Your task to perform on an android device: Open Amazon Image 0: 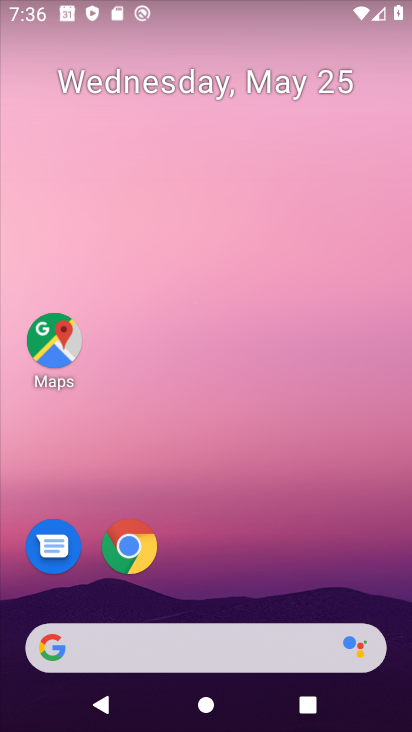
Step 0: drag from (387, 581) to (385, 253)
Your task to perform on an android device: Open Amazon Image 1: 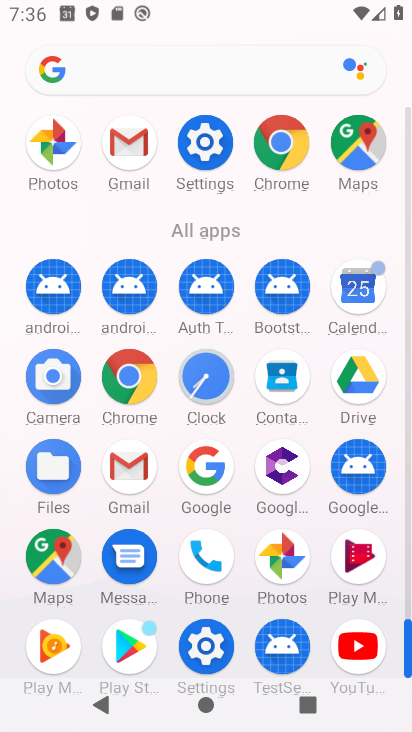
Step 1: click (136, 387)
Your task to perform on an android device: Open Amazon Image 2: 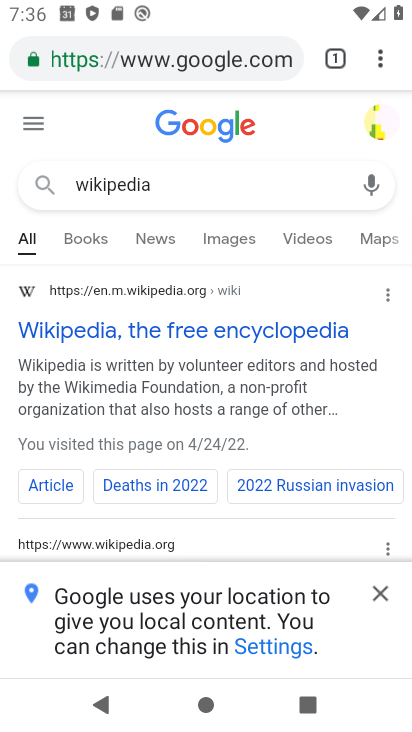
Step 2: click (226, 64)
Your task to perform on an android device: Open Amazon Image 3: 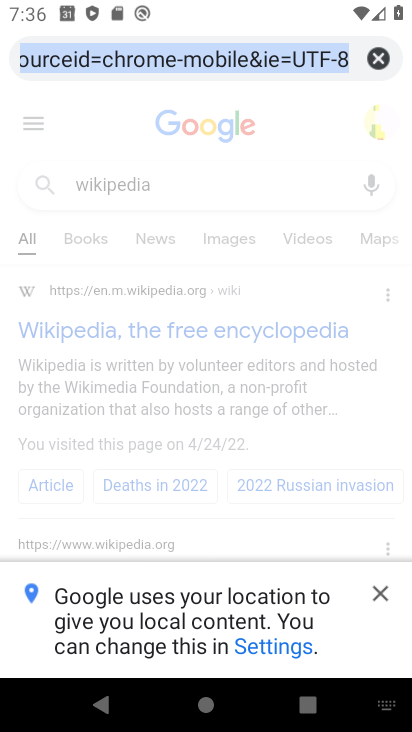
Step 3: click (380, 58)
Your task to perform on an android device: Open Amazon Image 4: 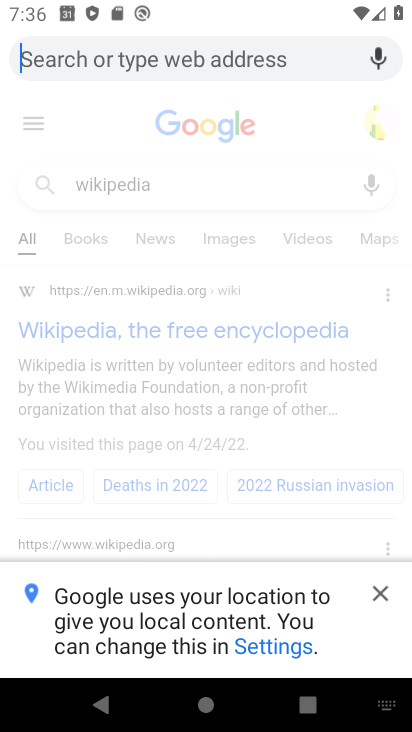
Step 4: type "Amazon"
Your task to perform on an android device: Open Amazon Image 5: 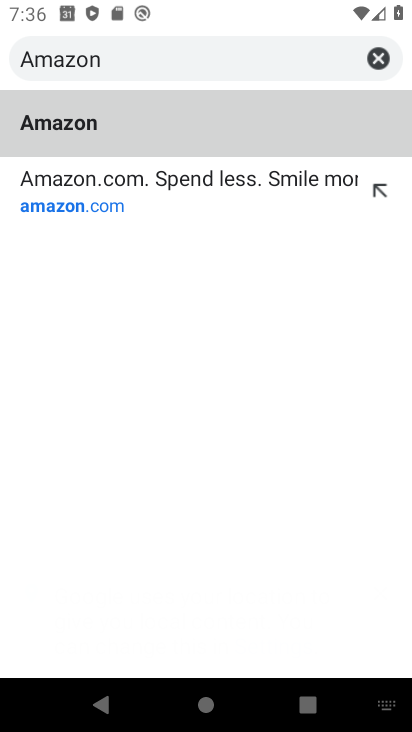
Step 5: click (118, 176)
Your task to perform on an android device: Open Amazon Image 6: 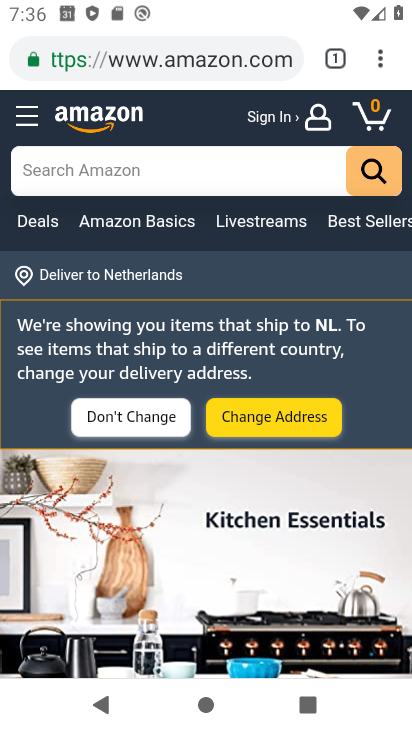
Step 6: task complete